Your task to perform on an android device: Go to settings Image 0: 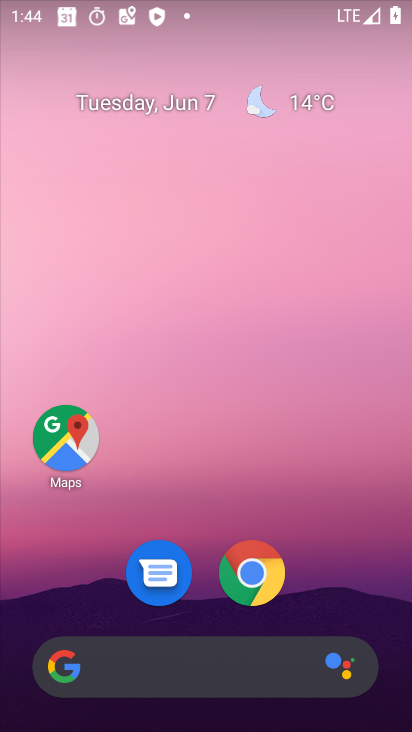
Step 0: drag from (206, 589) to (246, 186)
Your task to perform on an android device: Go to settings Image 1: 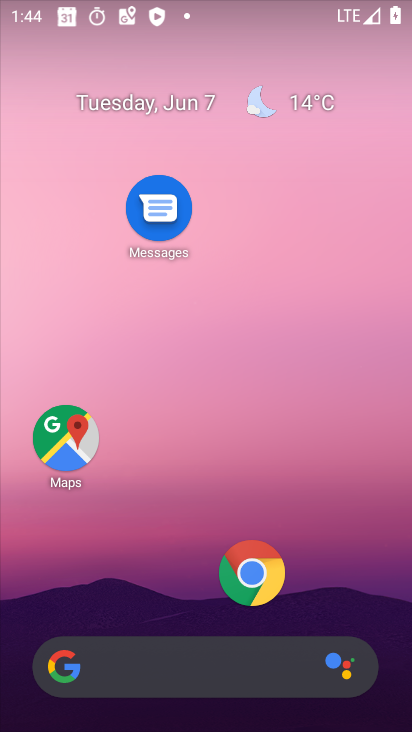
Step 1: drag from (196, 610) to (248, 146)
Your task to perform on an android device: Go to settings Image 2: 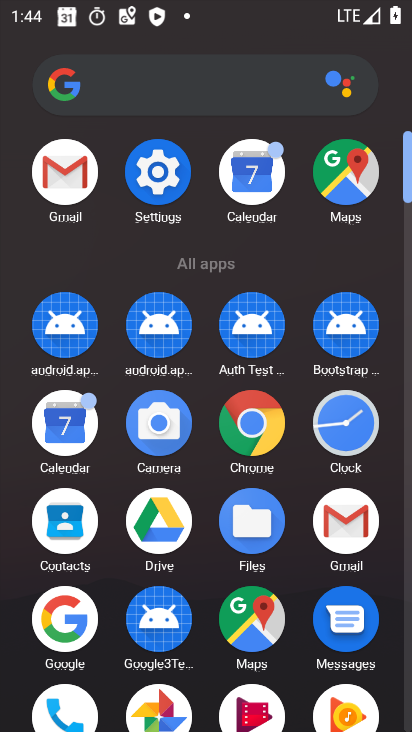
Step 2: click (154, 166)
Your task to perform on an android device: Go to settings Image 3: 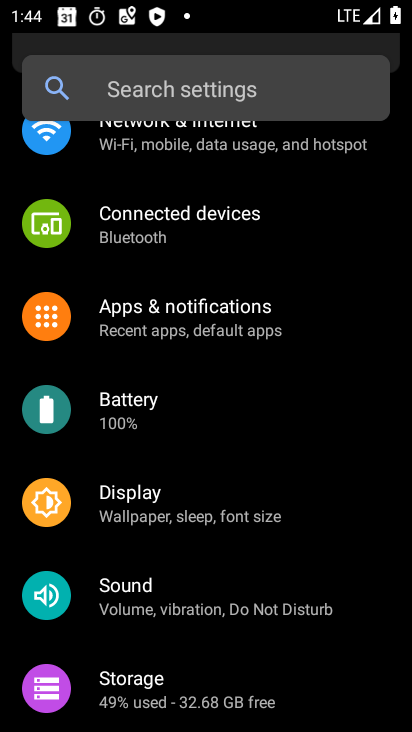
Step 3: drag from (211, 409) to (216, 173)
Your task to perform on an android device: Go to settings Image 4: 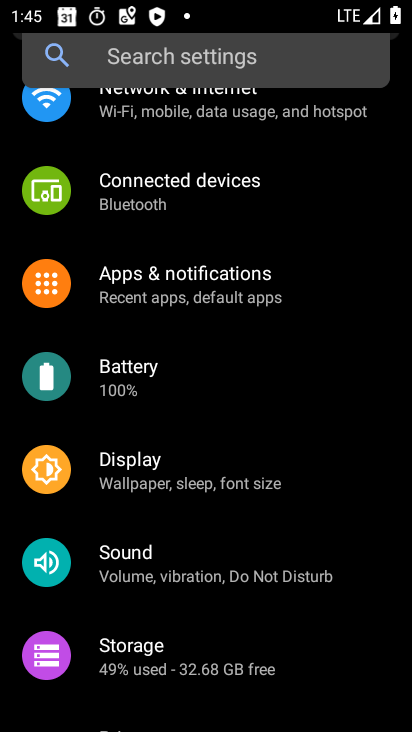
Step 4: drag from (188, 646) to (217, 122)
Your task to perform on an android device: Go to settings Image 5: 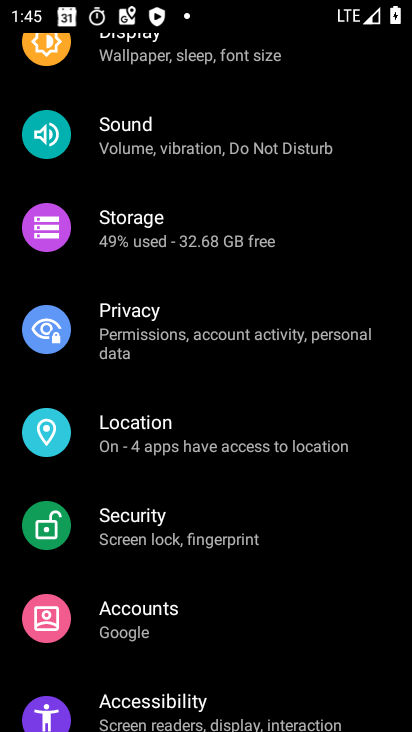
Step 5: drag from (199, 662) to (223, 407)
Your task to perform on an android device: Go to settings Image 6: 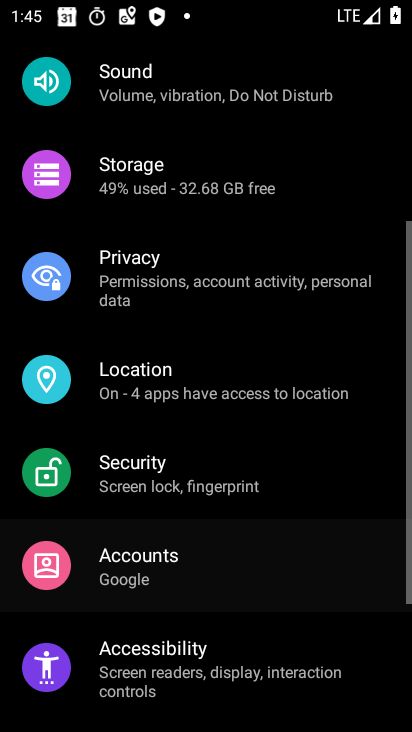
Step 6: click (231, 297)
Your task to perform on an android device: Go to settings Image 7: 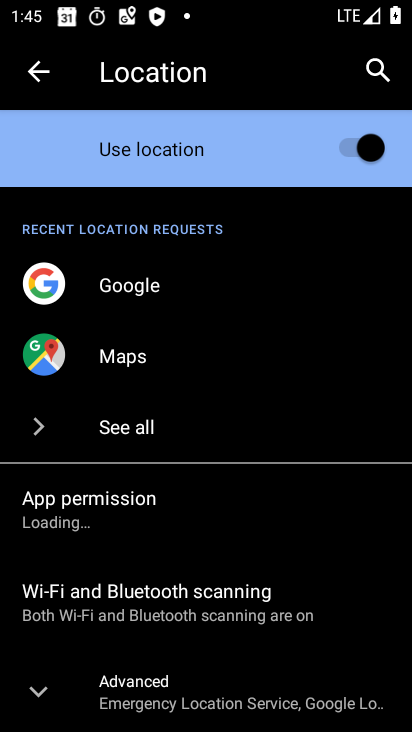
Step 7: task complete